Your task to perform on an android device: What's on my calendar today? Image 0: 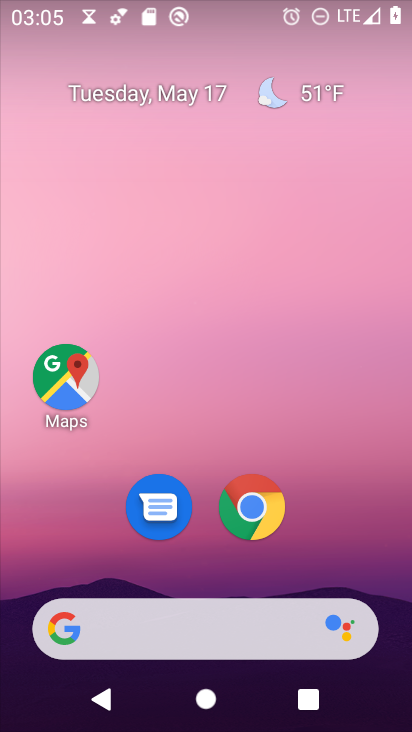
Step 0: drag from (197, 573) to (246, 97)
Your task to perform on an android device: What's on my calendar today? Image 1: 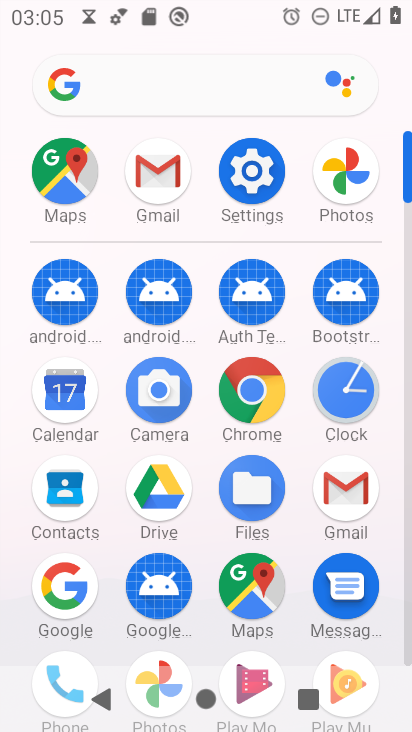
Step 1: click (66, 397)
Your task to perform on an android device: What's on my calendar today? Image 2: 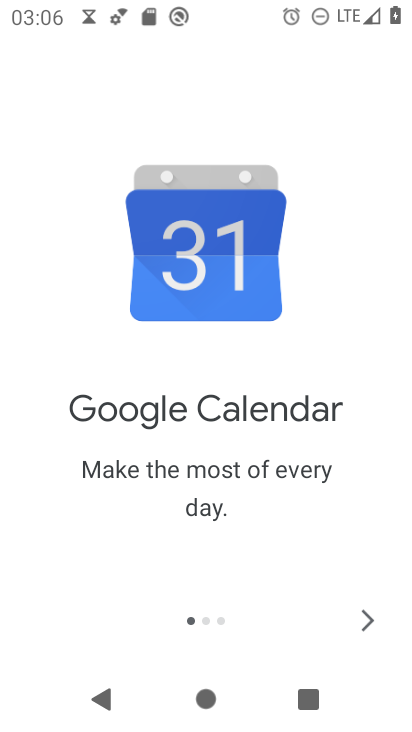
Step 2: click (361, 622)
Your task to perform on an android device: What's on my calendar today? Image 3: 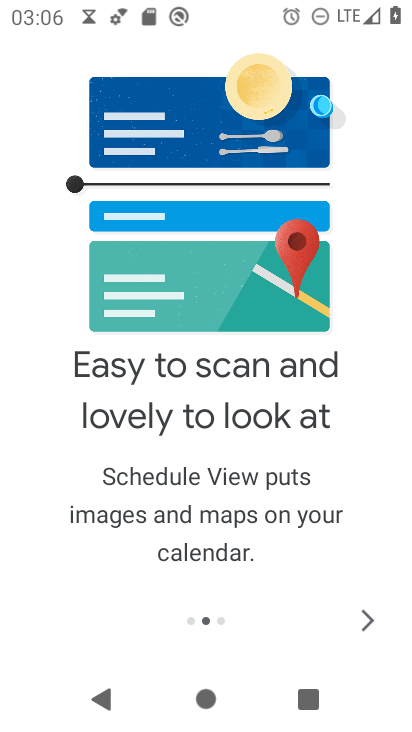
Step 3: click (361, 622)
Your task to perform on an android device: What's on my calendar today? Image 4: 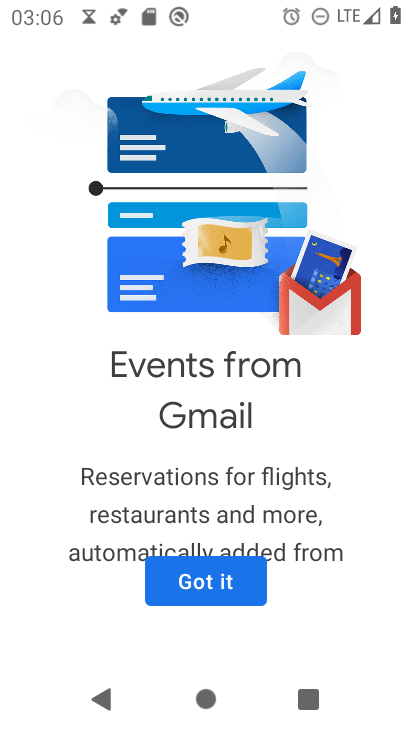
Step 4: click (202, 578)
Your task to perform on an android device: What's on my calendar today? Image 5: 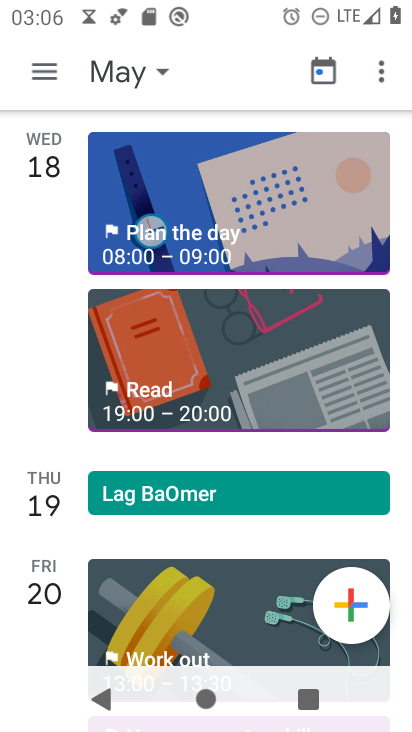
Step 5: click (140, 79)
Your task to perform on an android device: What's on my calendar today? Image 6: 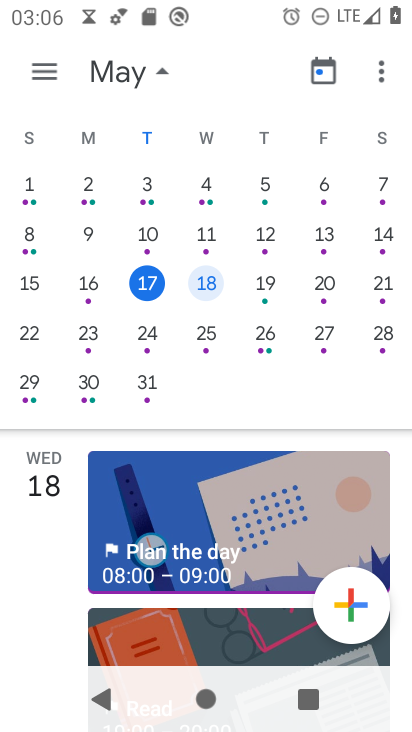
Step 6: click (147, 273)
Your task to perform on an android device: What's on my calendar today? Image 7: 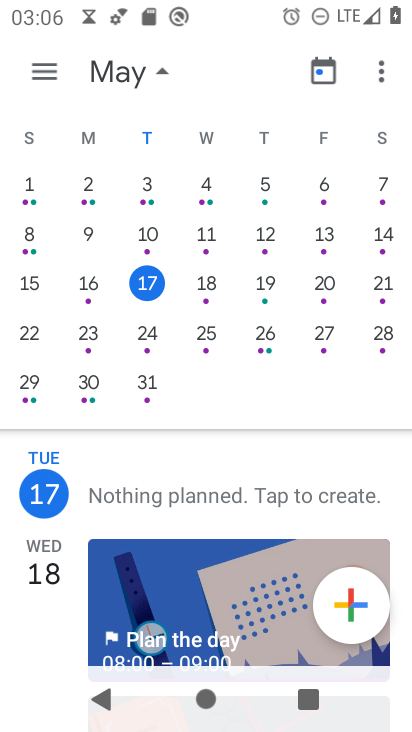
Step 7: task complete